Your task to perform on an android device: open app "Cash App" (install if not already installed) and enter user name: "submodules@gmail.com" and password: "heavenly" Image 0: 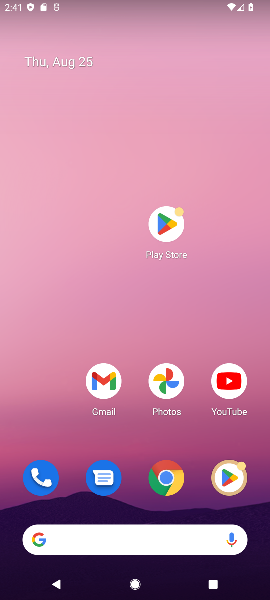
Step 0: click (168, 229)
Your task to perform on an android device: open app "Cash App" (install if not already installed) and enter user name: "submodules@gmail.com" and password: "heavenly" Image 1: 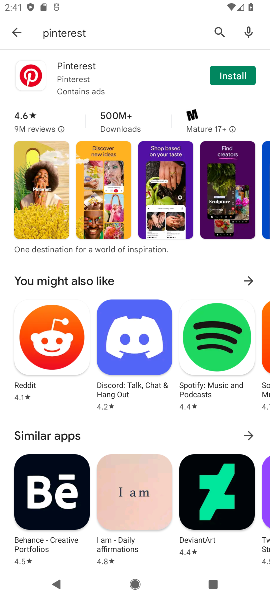
Step 1: click (216, 31)
Your task to perform on an android device: open app "Cash App" (install if not already installed) and enter user name: "submodules@gmail.com" and password: "heavenly" Image 2: 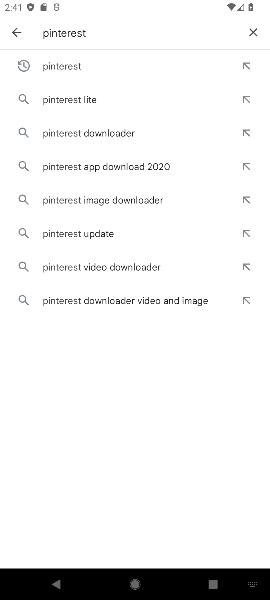
Step 2: click (255, 31)
Your task to perform on an android device: open app "Cash App" (install if not already installed) and enter user name: "submodules@gmail.com" and password: "heavenly" Image 3: 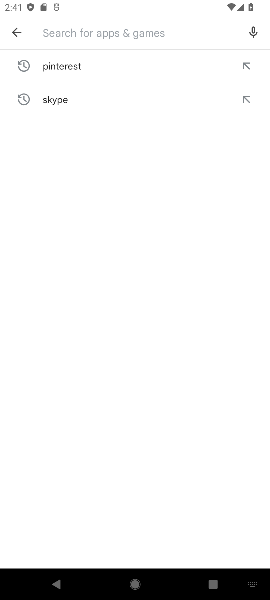
Step 3: type "Cash App"
Your task to perform on an android device: open app "Cash App" (install if not already installed) and enter user name: "submodules@gmail.com" and password: "heavenly" Image 4: 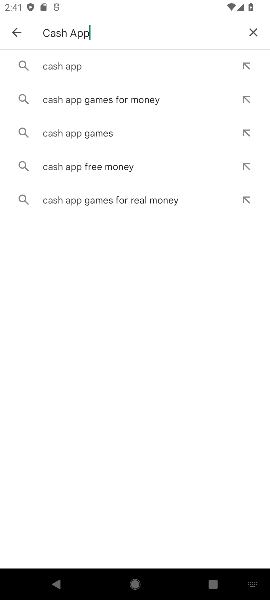
Step 4: click (58, 68)
Your task to perform on an android device: open app "Cash App" (install if not already installed) and enter user name: "submodules@gmail.com" and password: "heavenly" Image 5: 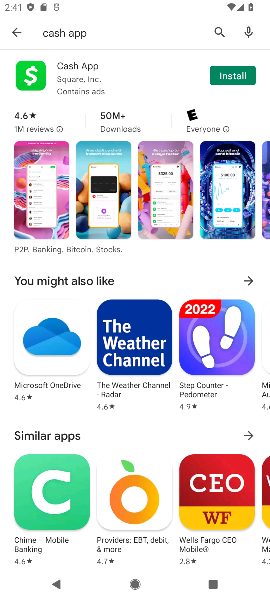
Step 5: click (228, 73)
Your task to perform on an android device: open app "Cash App" (install if not already installed) and enter user name: "submodules@gmail.com" and password: "heavenly" Image 6: 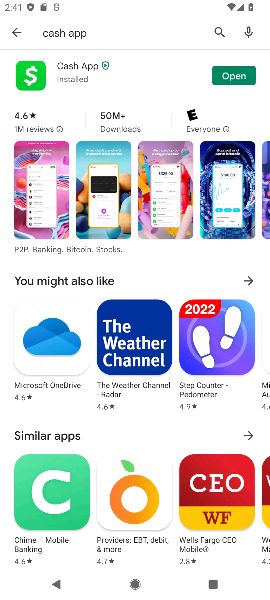
Step 6: click (227, 75)
Your task to perform on an android device: open app "Cash App" (install if not already installed) and enter user name: "submodules@gmail.com" and password: "heavenly" Image 7: 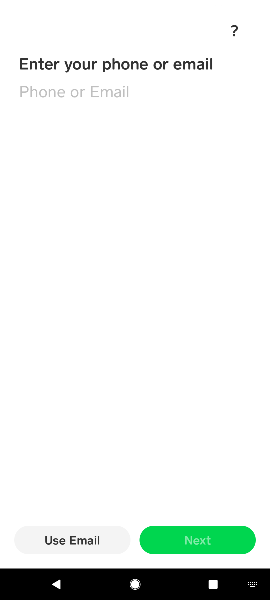
Step 7: type "submodules@gmail.com"
Your task to perform on an android device: open app "Cash App" (install if not already installed) and enter user name: "submodules@gmail.com" and password: "heavenly" Image 8: 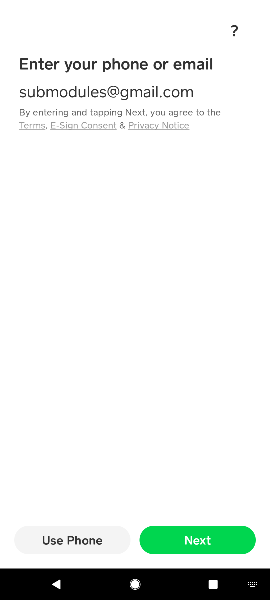
Step 8: click (194, 543)
Your task to perform on an android device: open app "Cash App" (install if not already installed) and enter user name: "submodules@gmail.com" and password: "heavenly" Image 9: 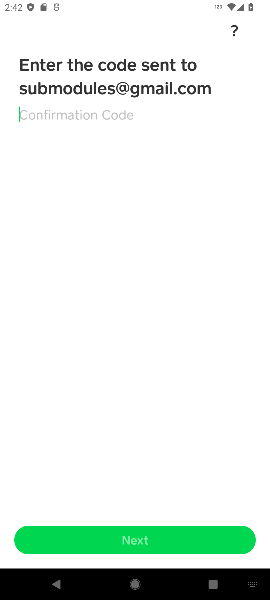
Step 9: type "heavenly"
Your task to perform on an android device: open app "Cash App" (install if not already installed) and enter user name: "submodules@gmail.com" and password: "heavenly" Image 10: 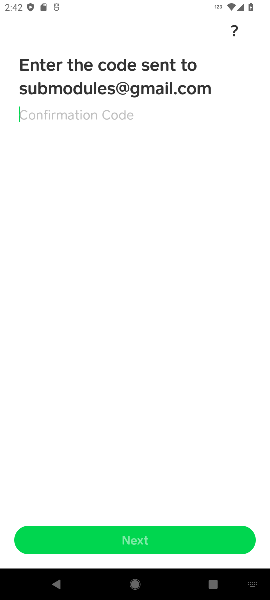
Step 10: task complete